Your task to perform on an android device: turn off airplane mode Image 0: 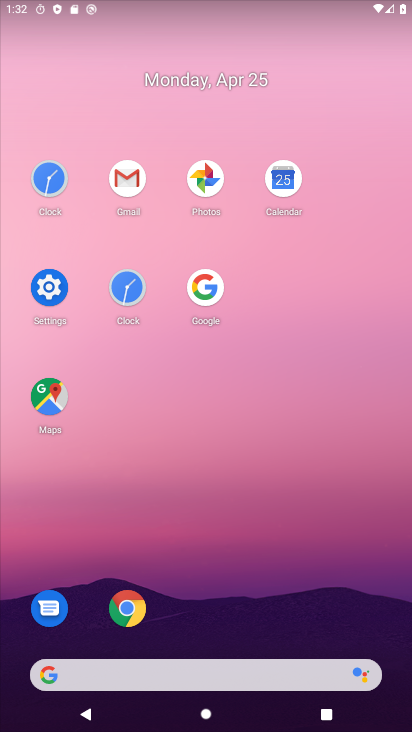
Step 0: click (50, 287)
Your task to perform on an android device: turn off airplane mode Image 1: 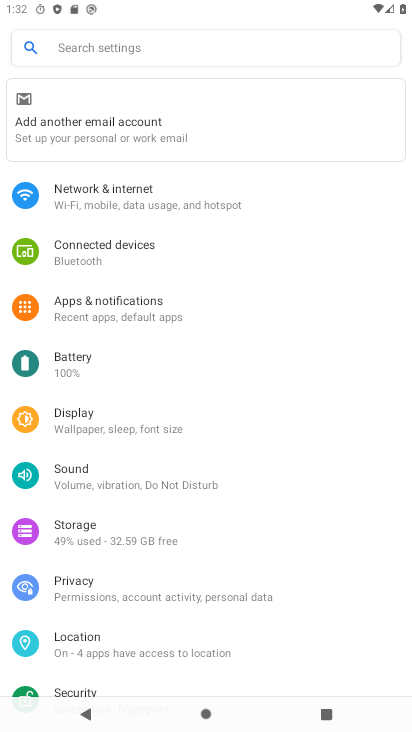
Step 1: click (159, 210)
Your task to perform on an android device: turn off airplane mode Image 2: 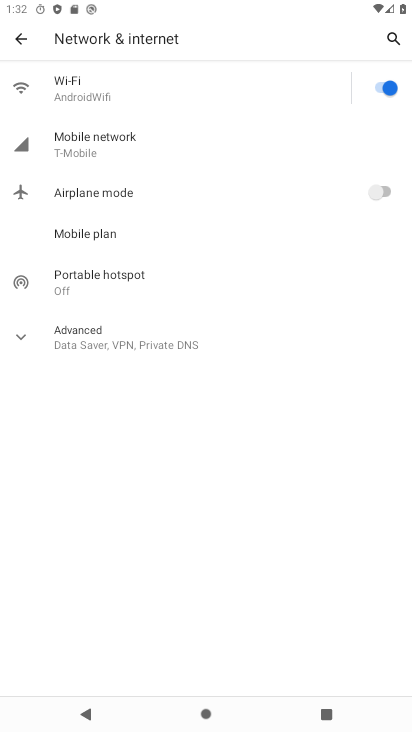
Step 2: task complete